Your task to perform on an android device: Open notification settings Image 0: 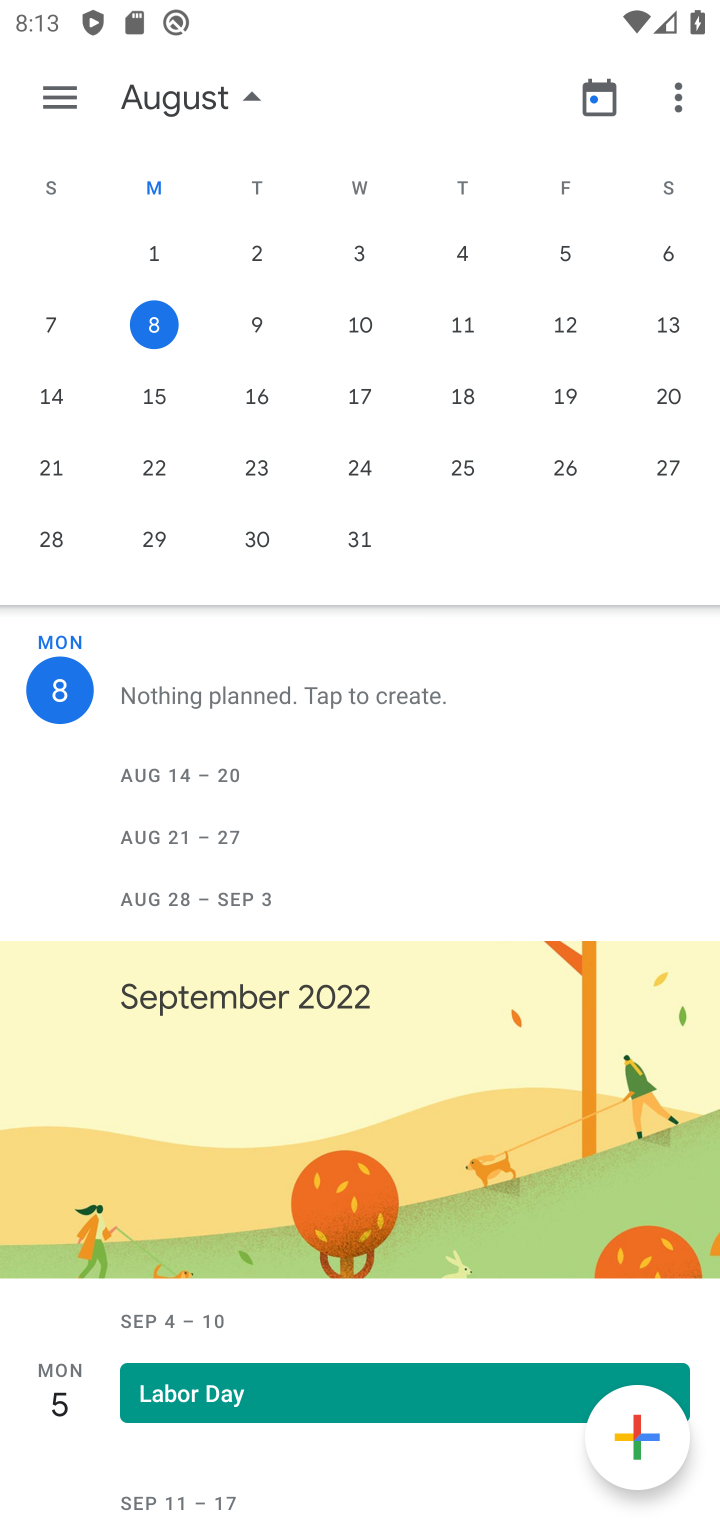
Step 0: press home button
Your task to perform on an android device: Open notification settings Image 1: 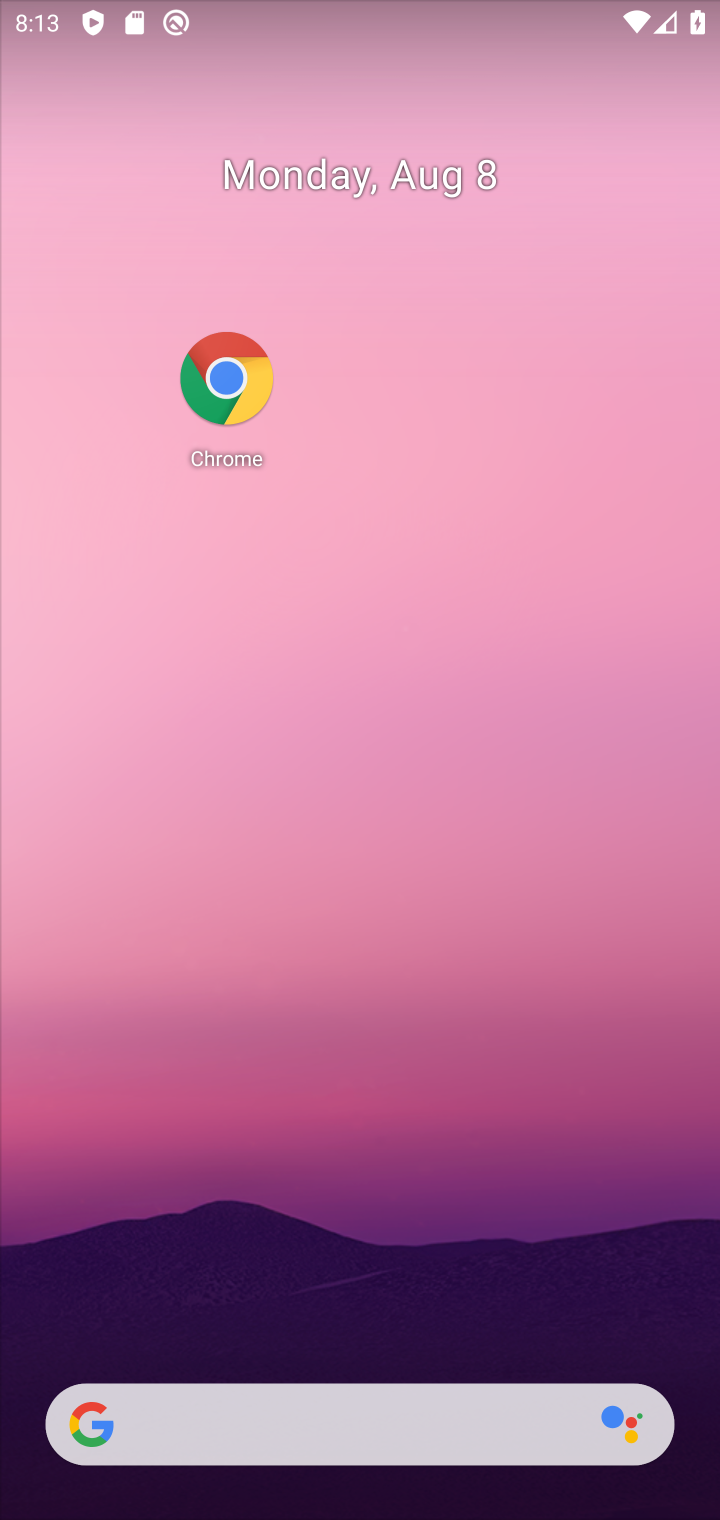
Step 1: drag from (304, 1244) to (304, 1089)
Your task to perform on an android device: Open notification settings Image 2: 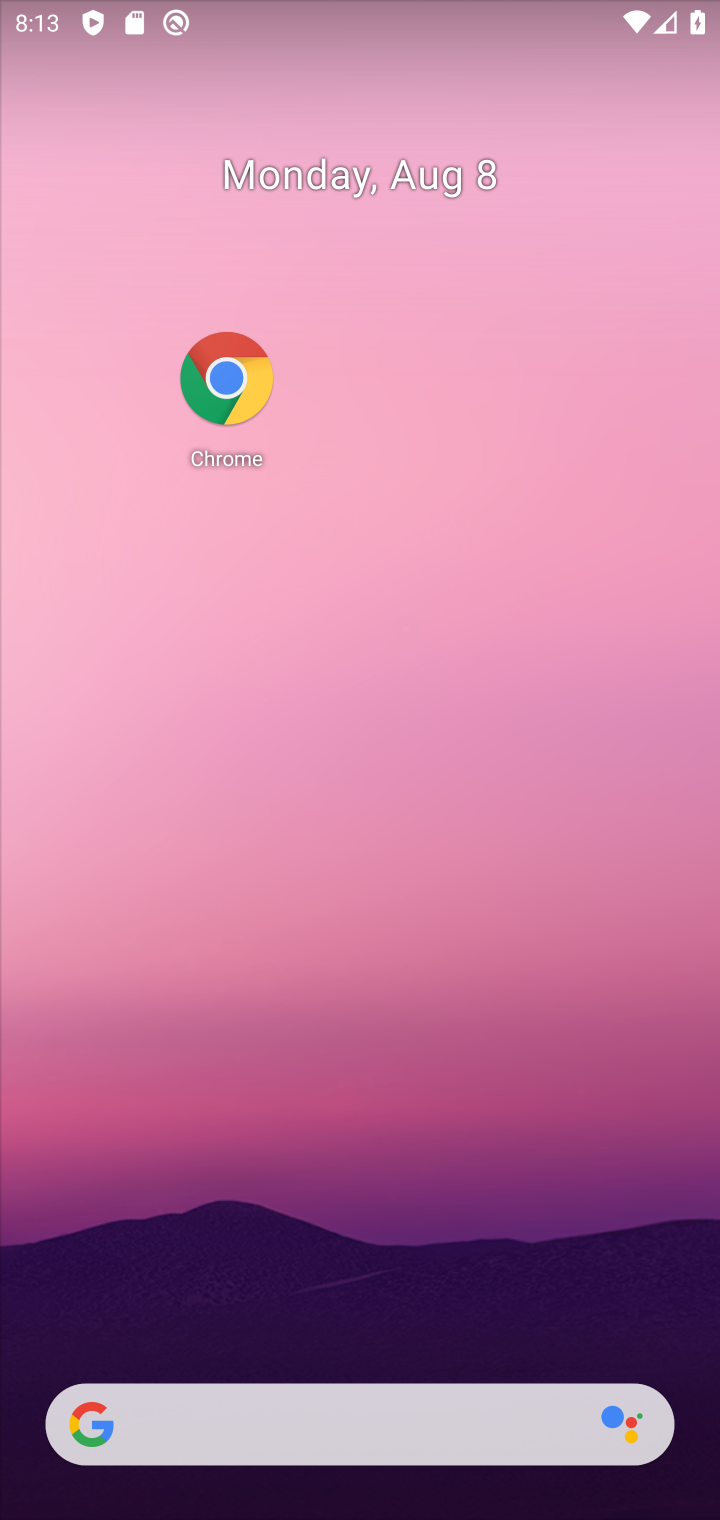
Step 2: drag from (318, 1315) to (305, 1202)
Your task to perform on an android device: Open notification settings Image 3: 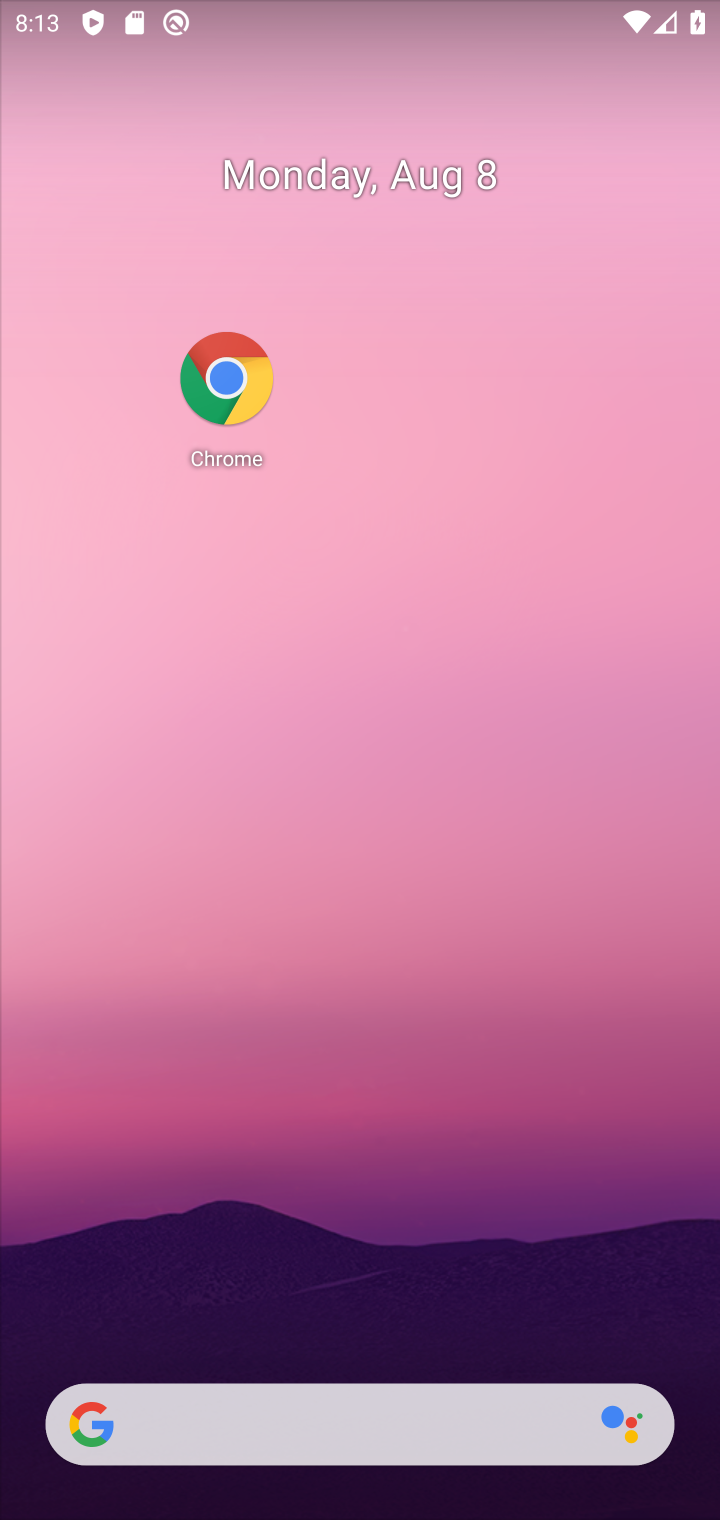
Step 3: drag from (187, 1331) to (186, 798)
Your task to perform on an android device: Open notification settings Image 4: 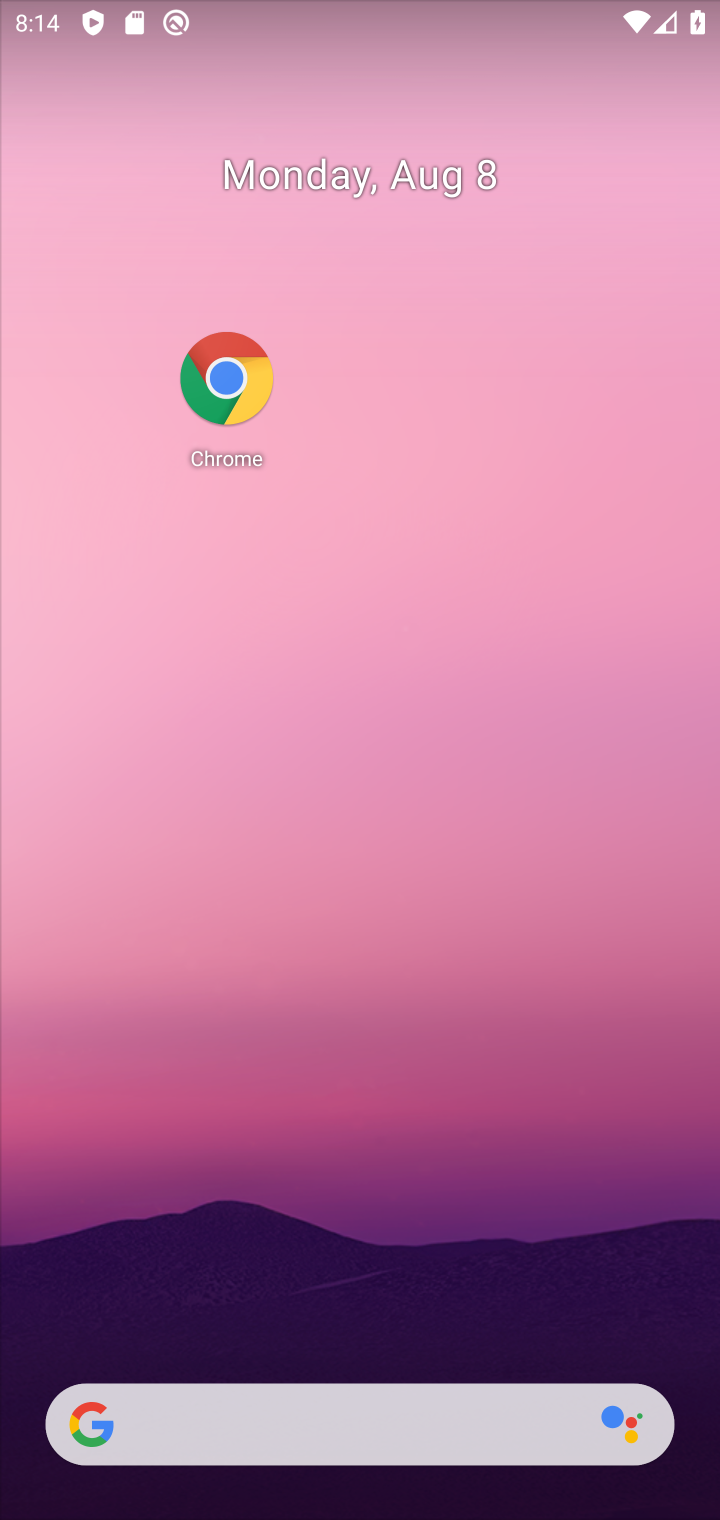
Step 4: drag from (164, 1237) to (182, 557)
Your task to perform on an android device: Open notification settings Image 5: 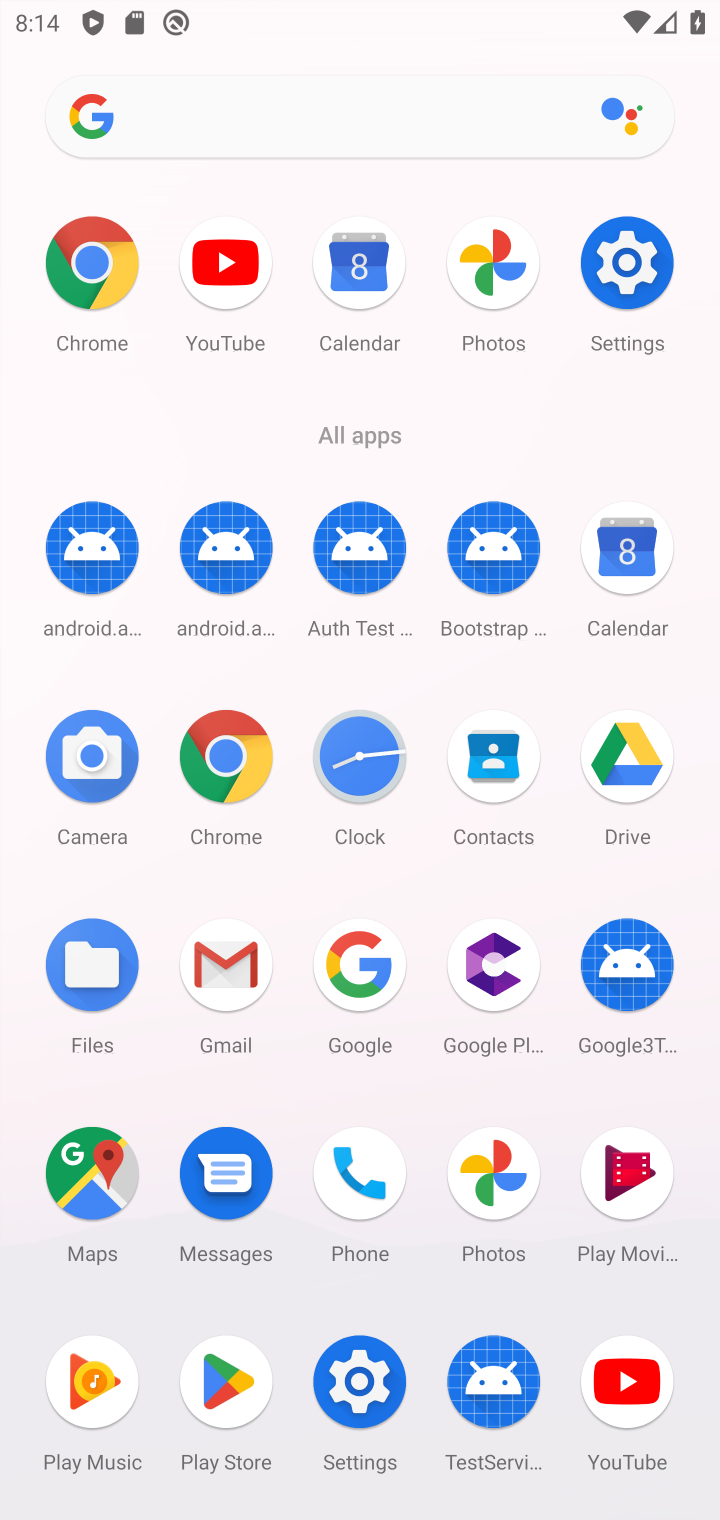
Step 5: click (620, 298)
Your task to perform on an android device: Open notification settings Image 6: 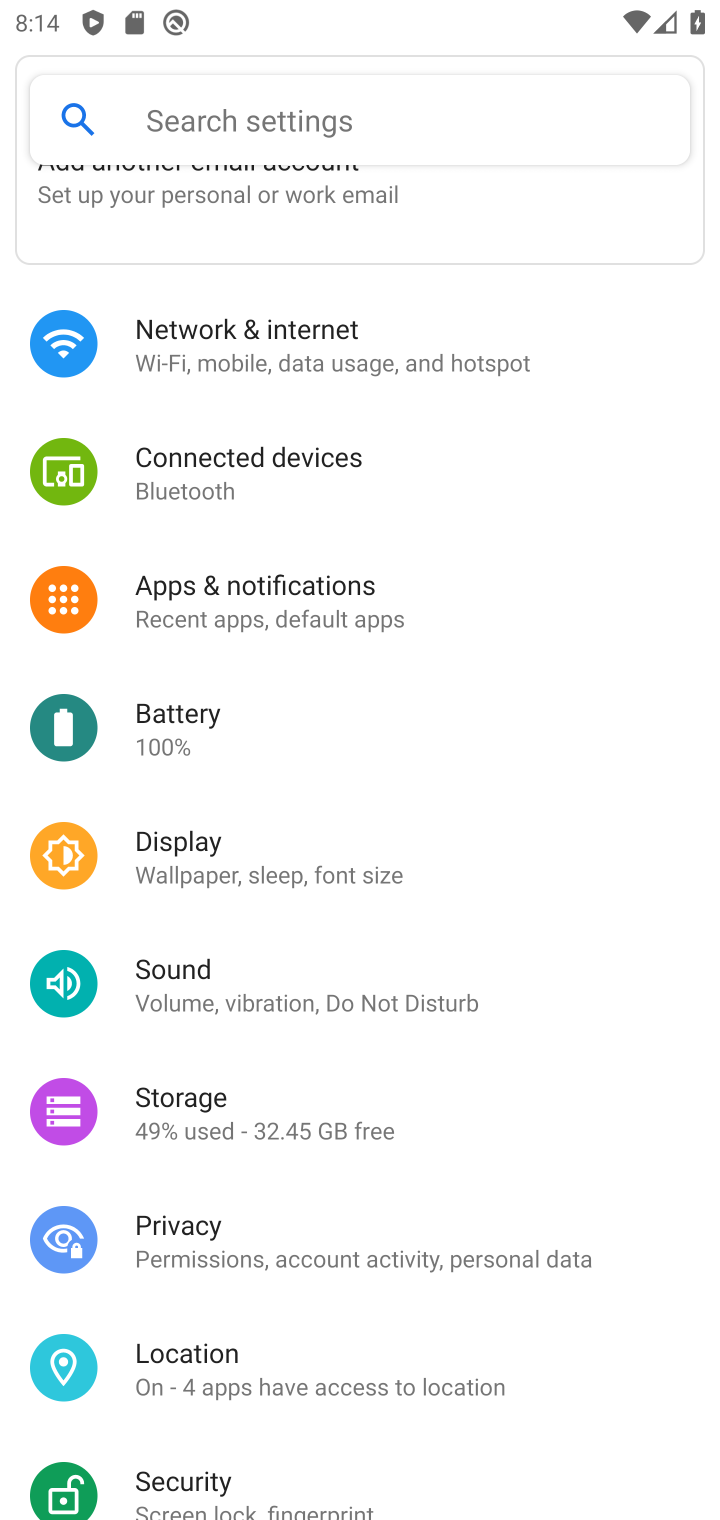
Step 6: click (270, 617)
Your task to perform on an android device: Open notification settings Image 7: 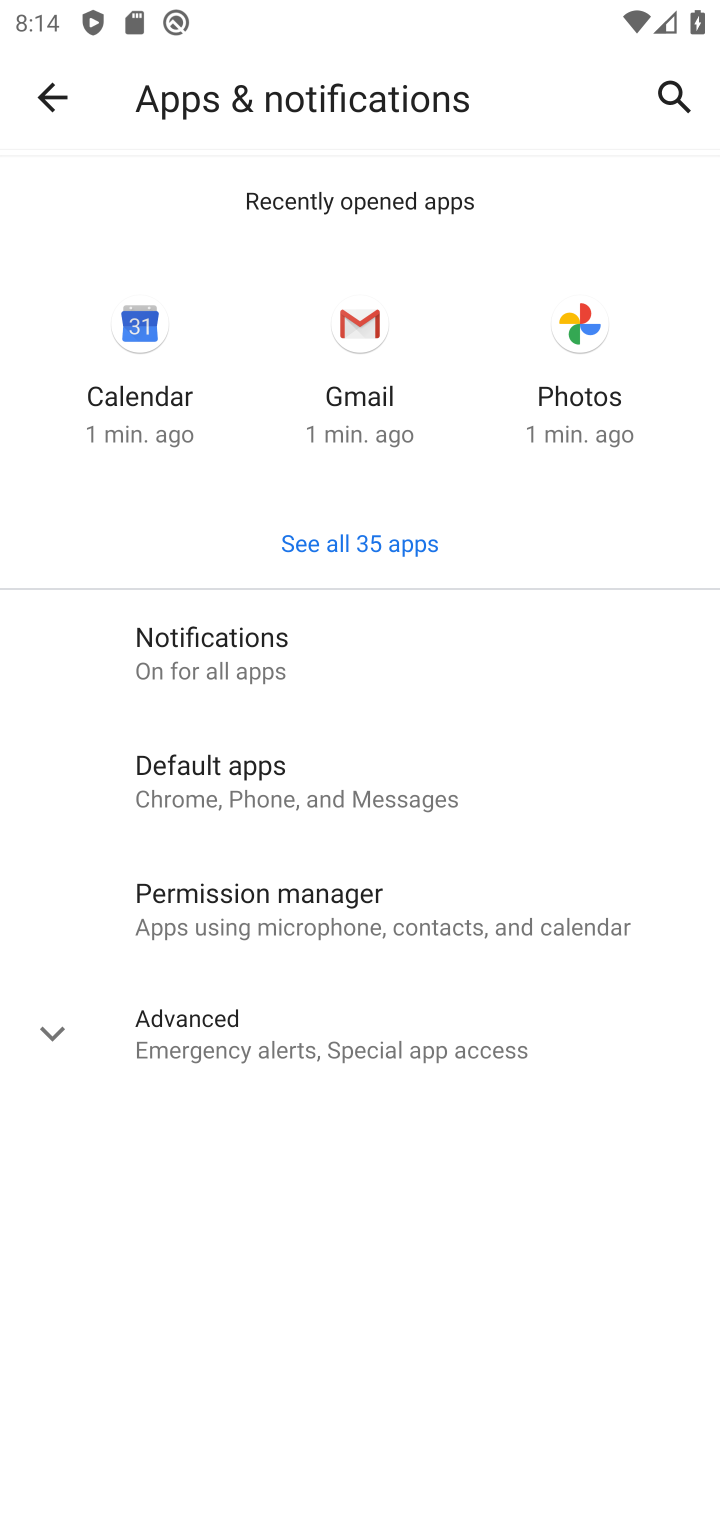
Step 7: click (222, 651)
Your task to perform on an android device: Open notification settings Image 8: 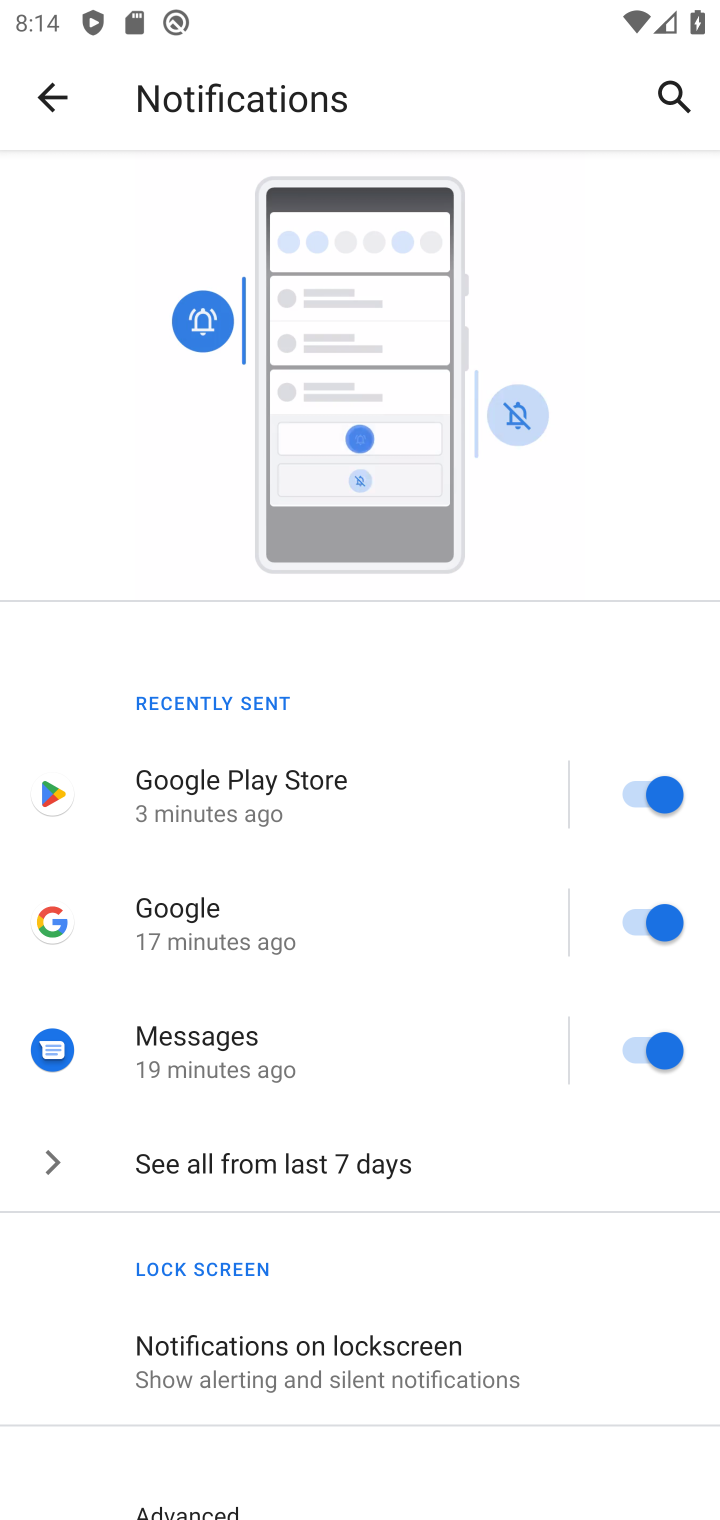
Step 8: task complete